Your task to perform on an android device: Search for the best selling coffee table on Crate & Barrel Image 0: 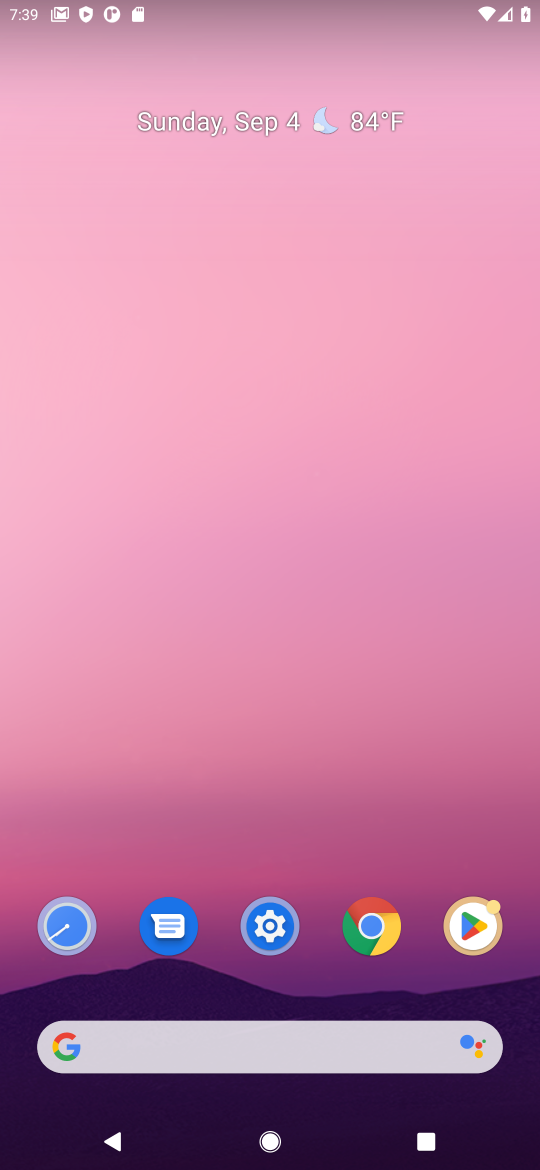
Step 0: click (183, 1050)
Your task to perform on an android device: Search for the best selling coffee table on Crate & Barrel Image 1: 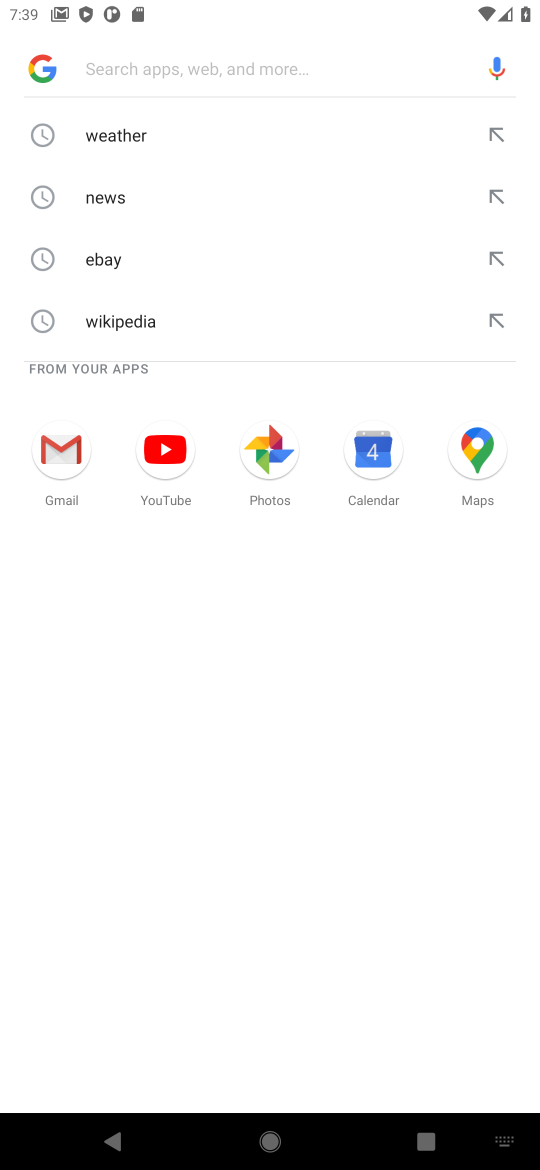
Step 1: type "Crate & Barrel"
Your task to perform on an android device: Search for the best selling coffee table on Crate & Barrel Image 2: 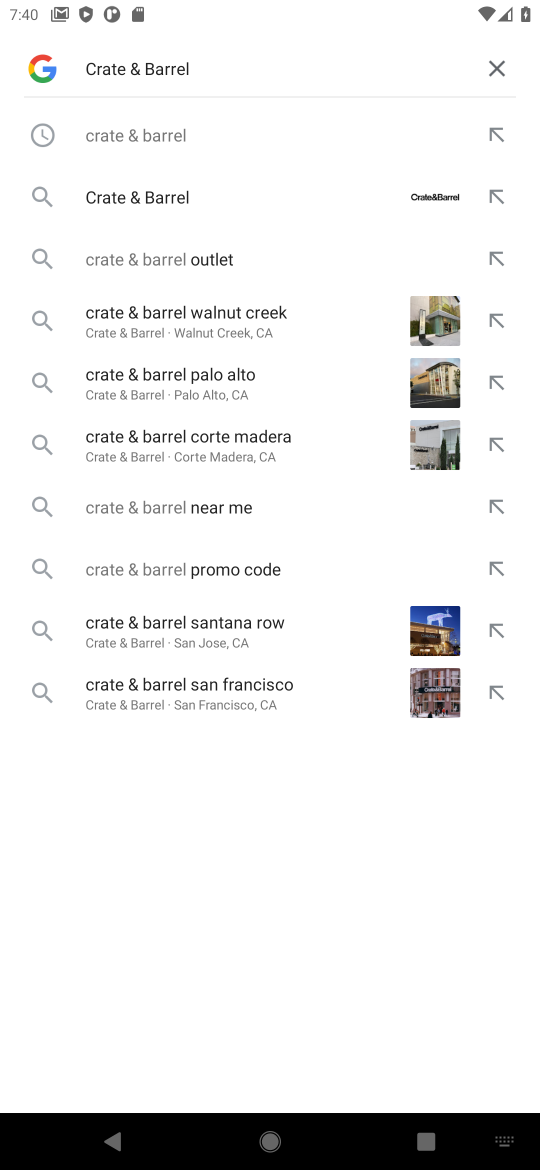
Step 2: click (141, 128)
Your task to perform on an android device: Search for the best selling coffee table on Crate & Barrel Image 3: 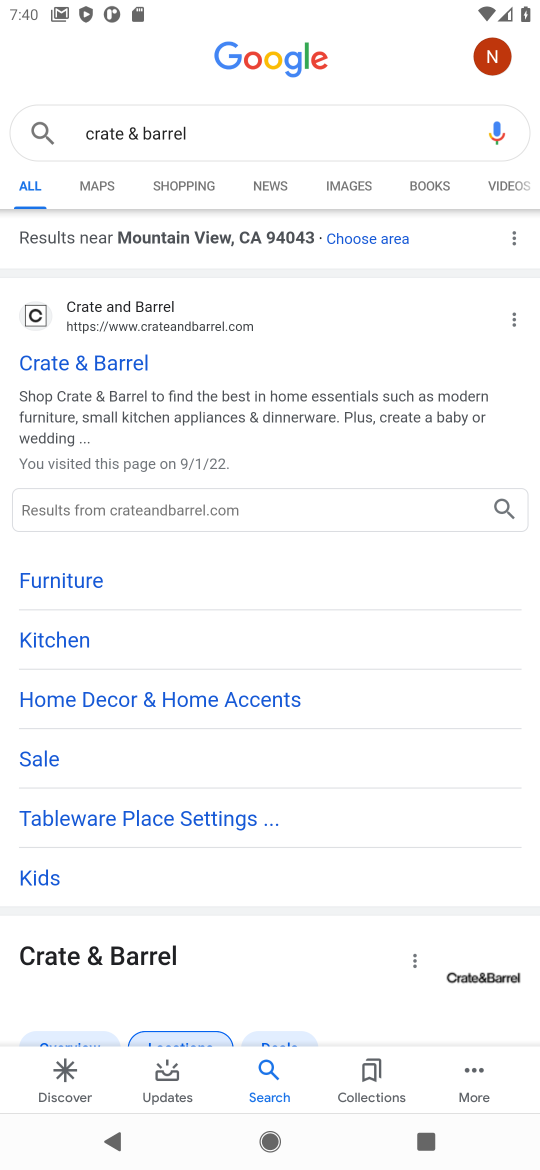
Step 3: click (104, 357)
Your task to perform on an android device: Search for the best selling coffee table on Crate & Barrel Image 4: 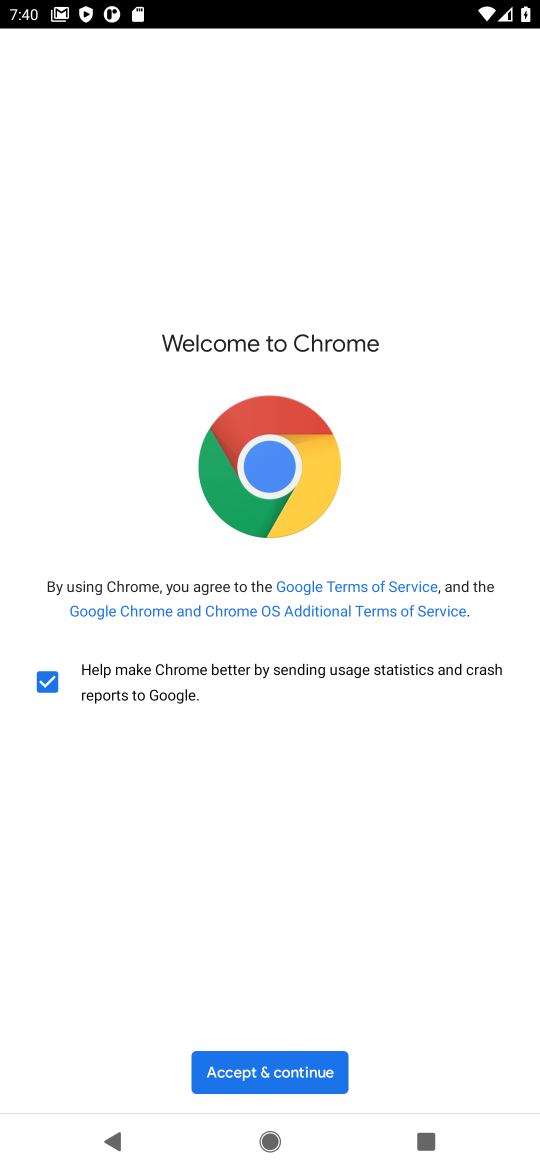
Step 4: click (250, 1070)
Your task to perform on an android device: Search for the best selling coffee table on Crate & Barrel Image 5: 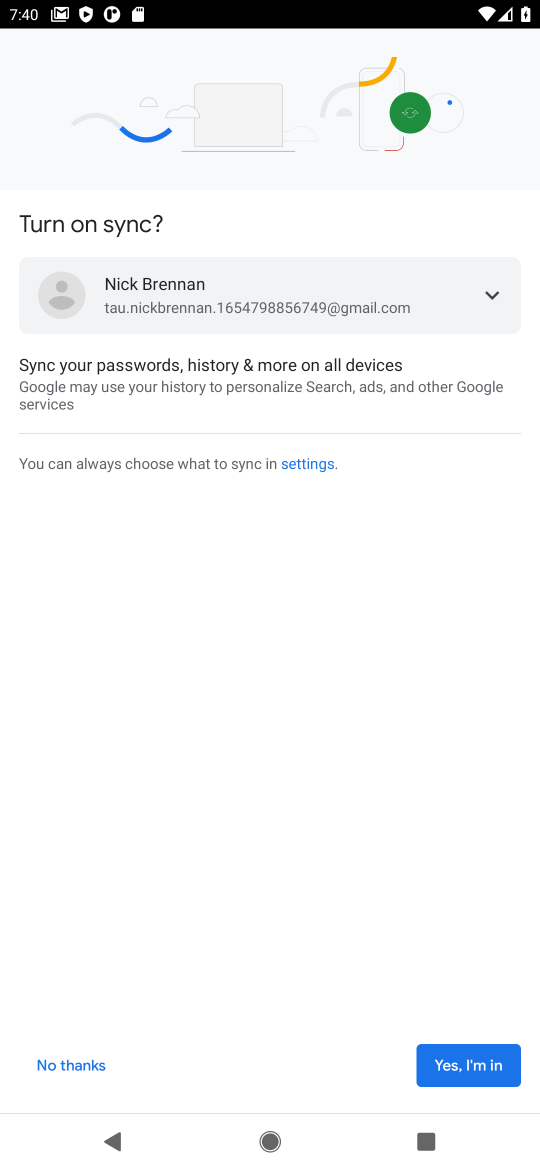
Step 5: click (449, 1058)
Your task to perform on an android device: Search for the best selling coffee table on Crate & Barrel Image 6: 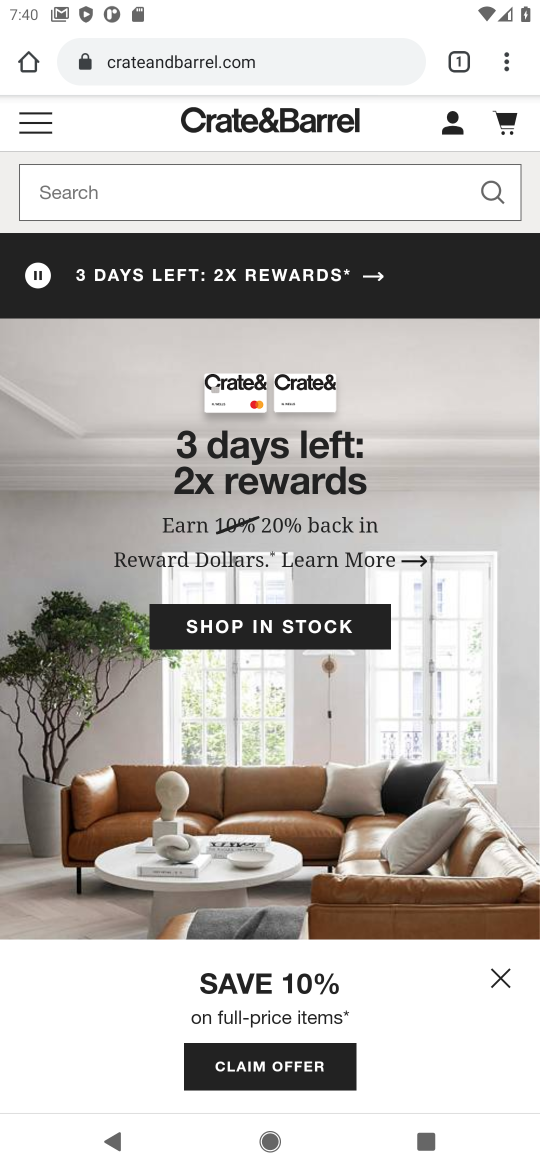
Step 6: click (271, 181)
Your task to perform on an android device: Search for the best selling coffee table on Crate & Barrel Image 7: 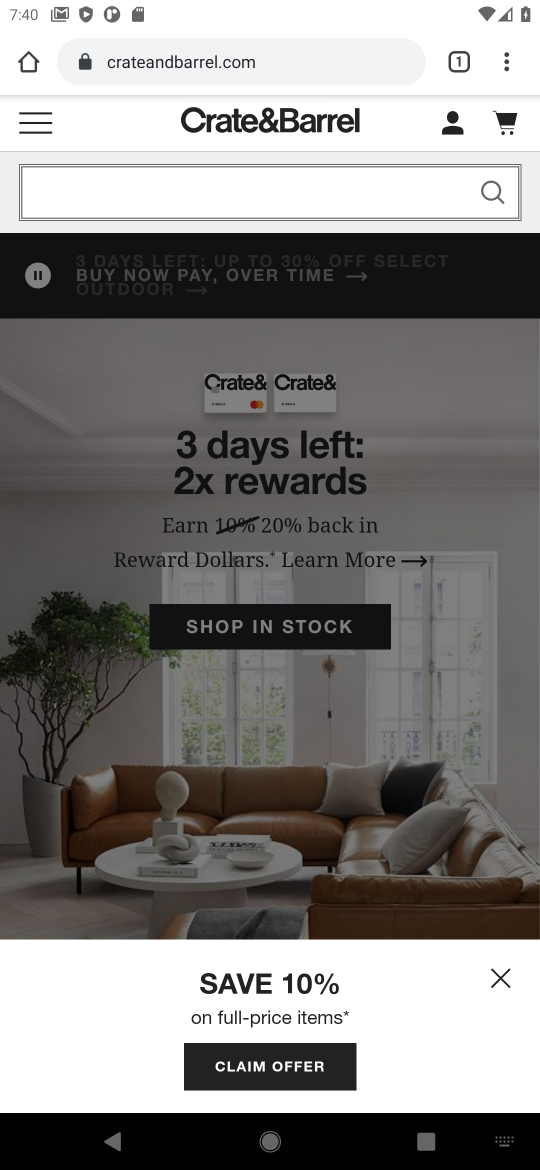
Step 7: type "coffee table"
Your task to perform on an android device: Search for the best selling coffee table on Crate & Barrel Image 8: 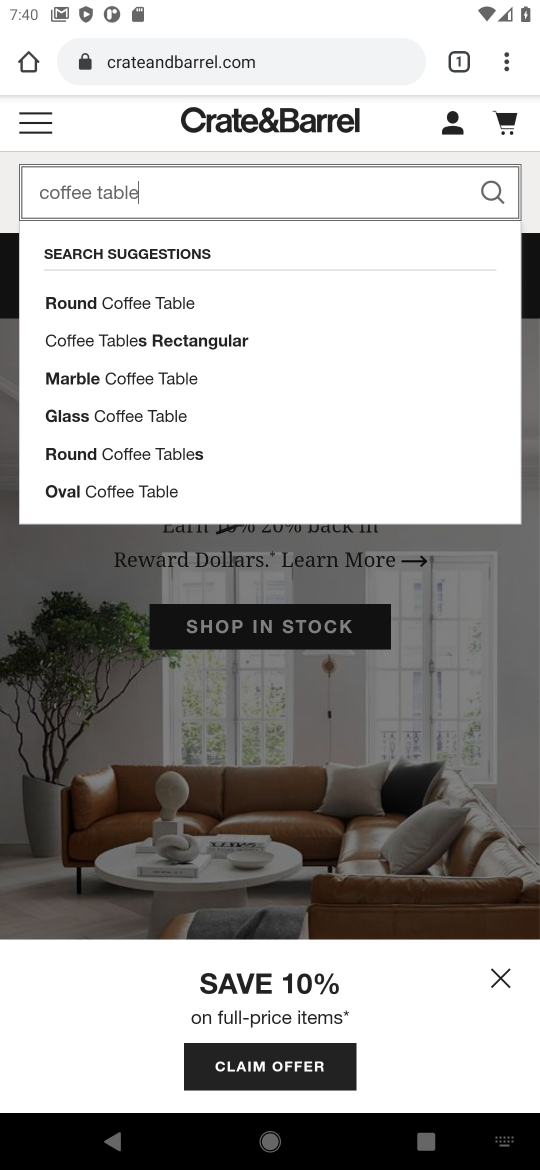
Step 8: click (493, 183)
Your task to perform on an android device: Search for the best selling coffee table on Crate & Barrel Image 9: 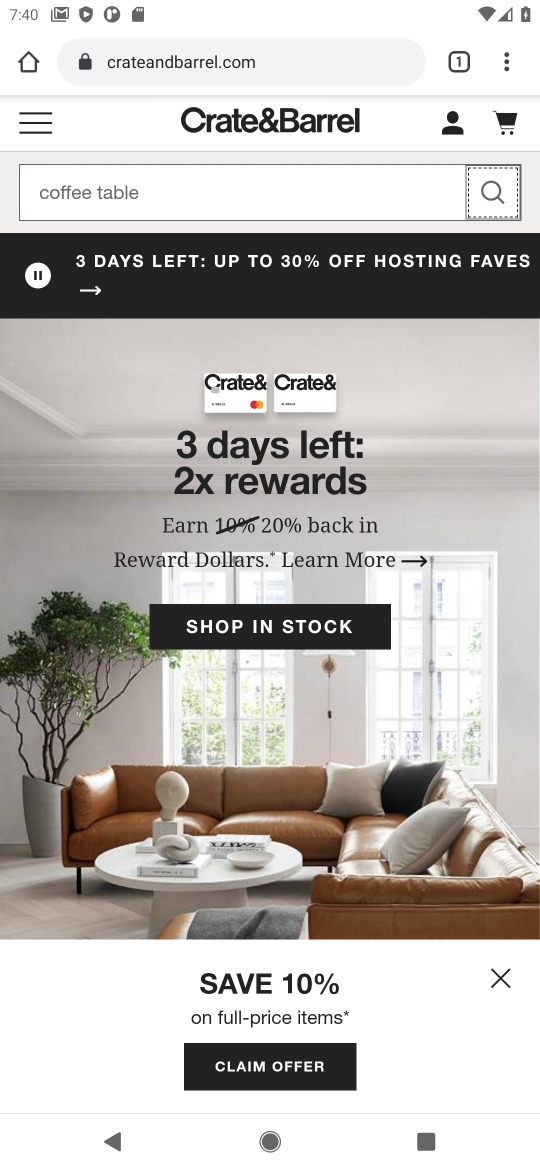
Step 9: click (500, 981)
Your task to perform on an android device: Search for the best selling coffee table on Crate & Barrel Image 10: 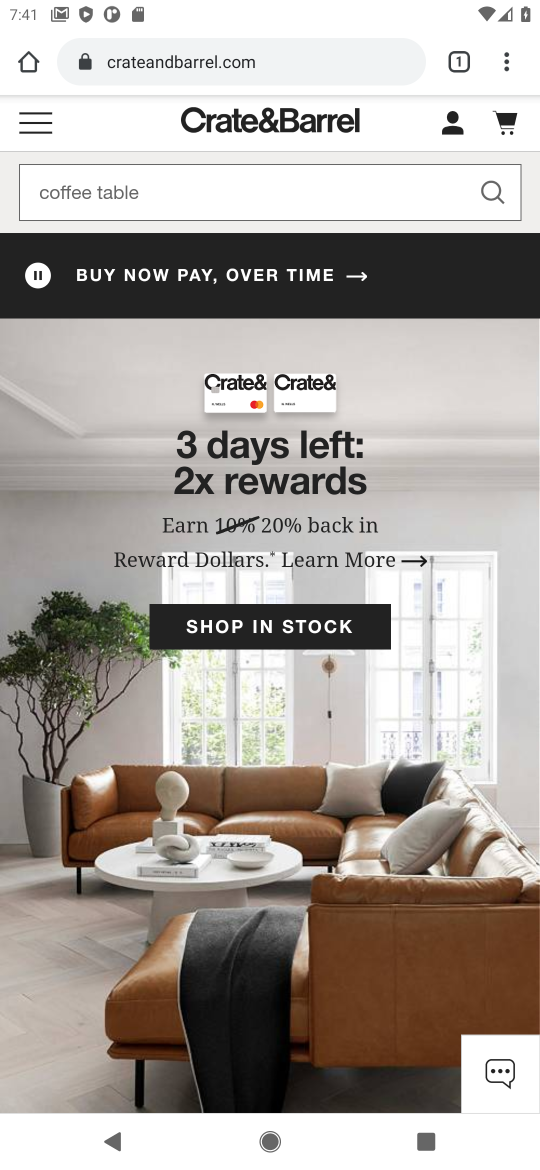
Step 10: drag from (451, 851) to (398, 406)
Your task to perform on an android device: Search for the best selling coffee table on Crate & Barrel Image 11: 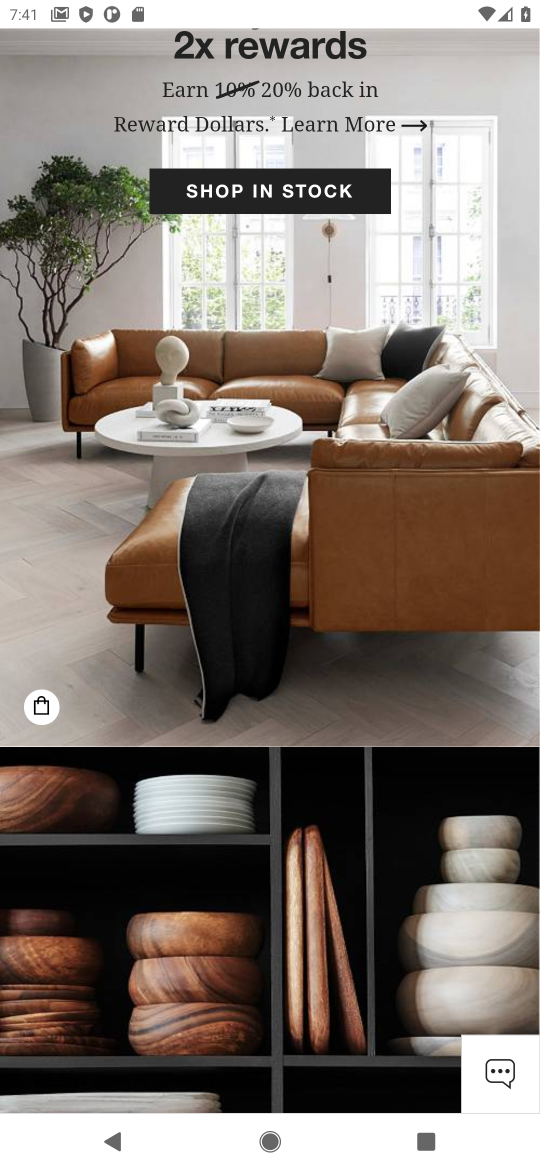
Step 11: drag from (353, 960) to (337, 607)
Your task to perform on an android device: Search for the best selling coffee table on Crate & Barrel Image 12: 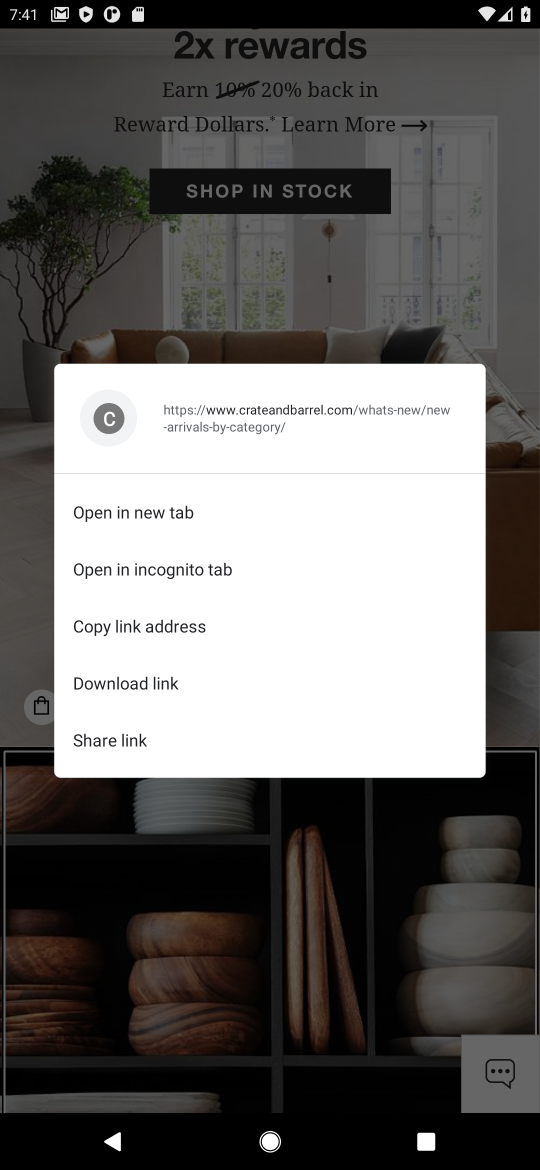
Step 12: click (308, 950)
Your task to perform on an android device: Search for the best selling coffee table on Crate & Barrel Image 13: 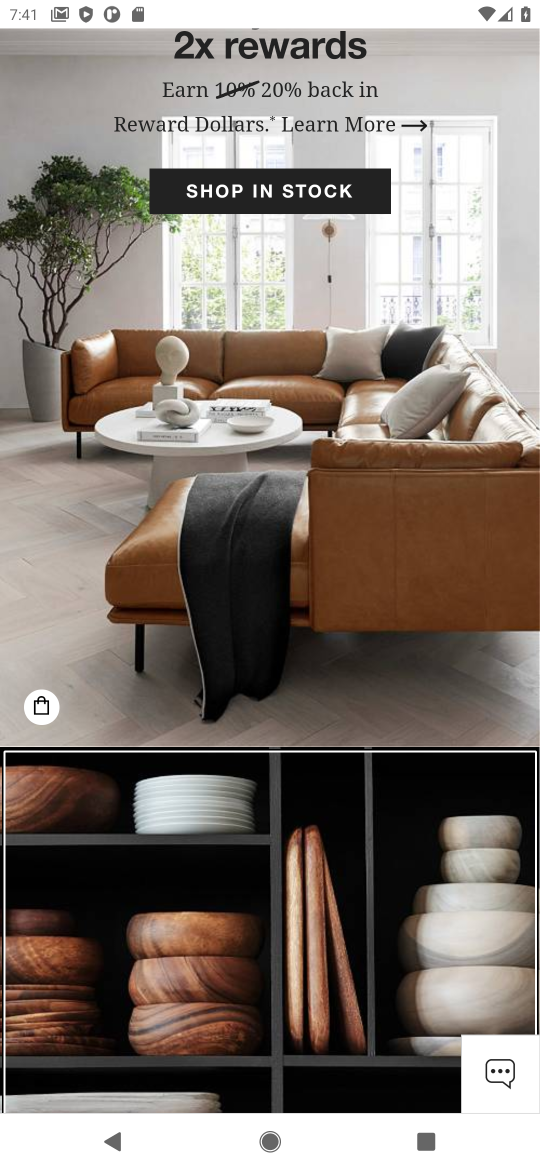
Step 13: task complete